Your task to perform on an android device: Go to Amazon Image 0: 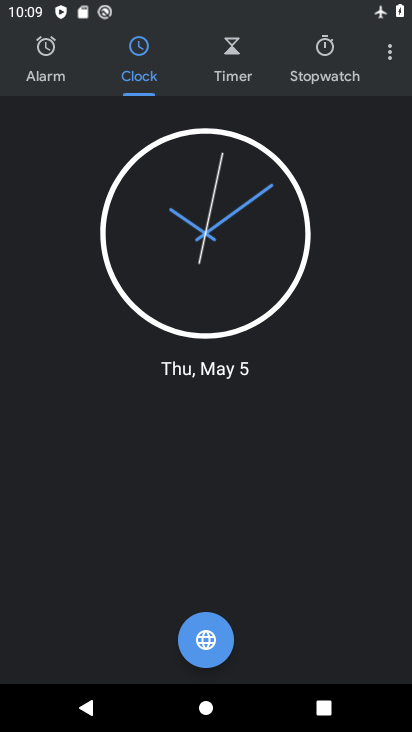
Step 0: press home button
Your task to perform on an android device: Go to Amazon Image 1: 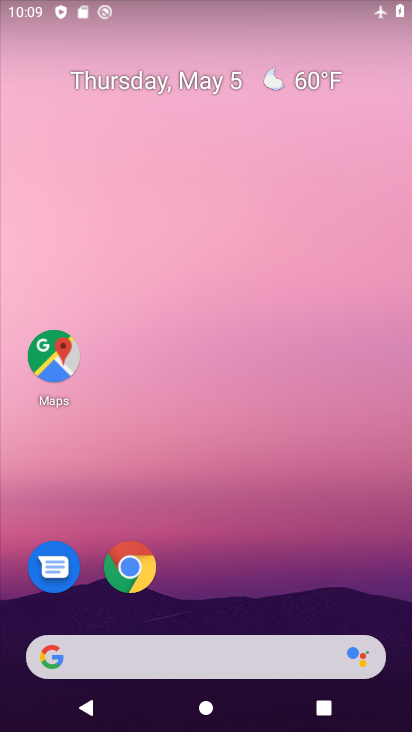
Step 1: click (141, 559)
Your task to perform on an android device: Go to Amazon Image 2: 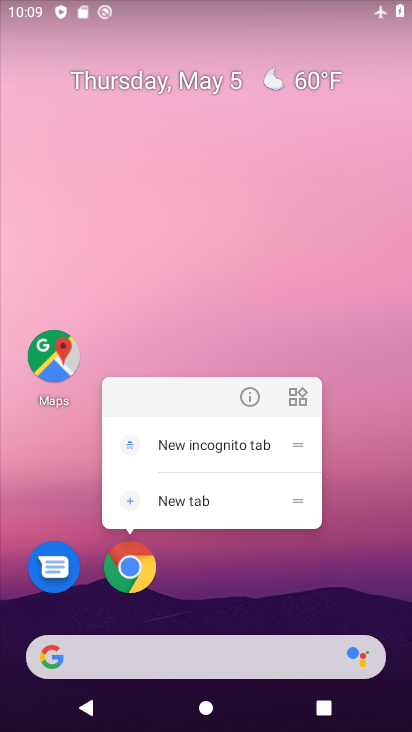
Step 2: click (141, 559)
Your task to perform on an android device: Go to Amazon Image 3: 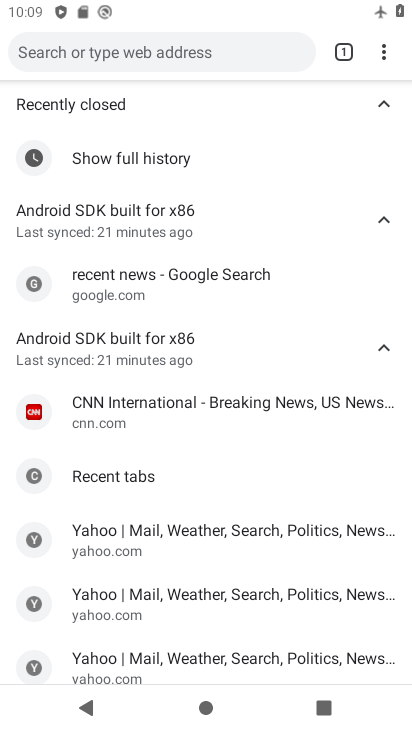
Step 3: click (345, 48)
Your task to perform on an android device: Go to Amazon Image 4: 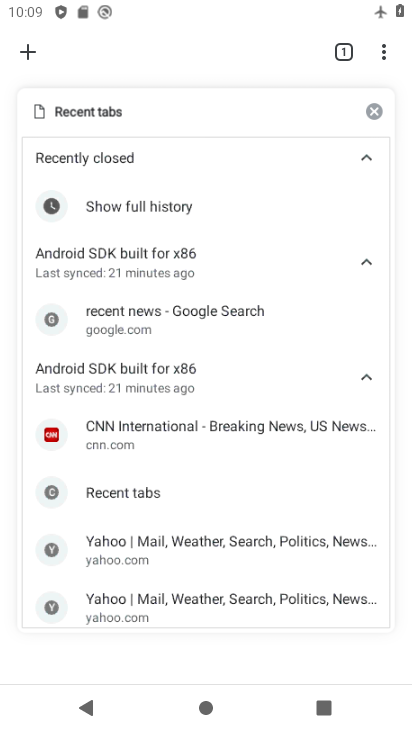
Step 4: click (26, 41)
Your task to perform on an android device: Go to Amazon Image 5: 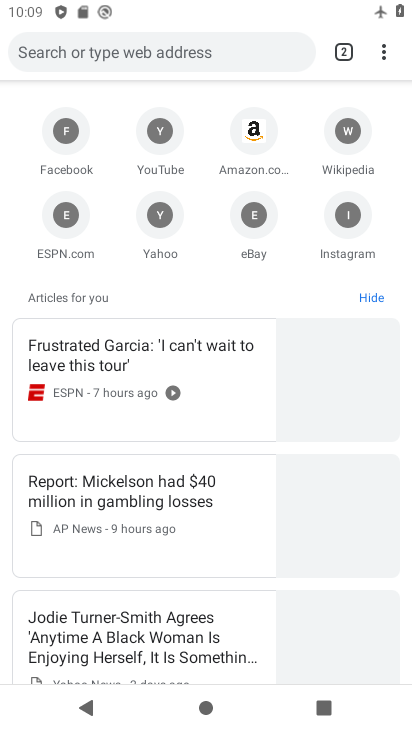
Step 5: click (255, 134)
Your task to perform on an android device: Go to Amazon Image 6: 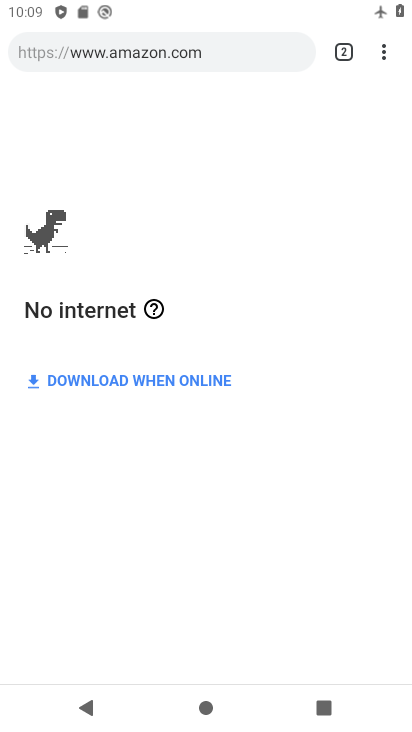
Step 6: task complete